Your task to perform on an android device: Open Google Chrome and click the shortcut for Amazon.com Image 0: 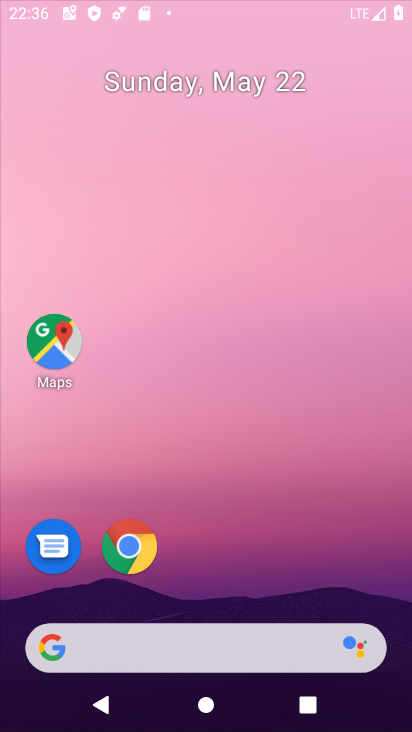
Step 0: drag from (213, 587) to (244, 146)
Your task to perform on an android device: Open Google Chrome and click the shortcut for Amazon.com Image 1: 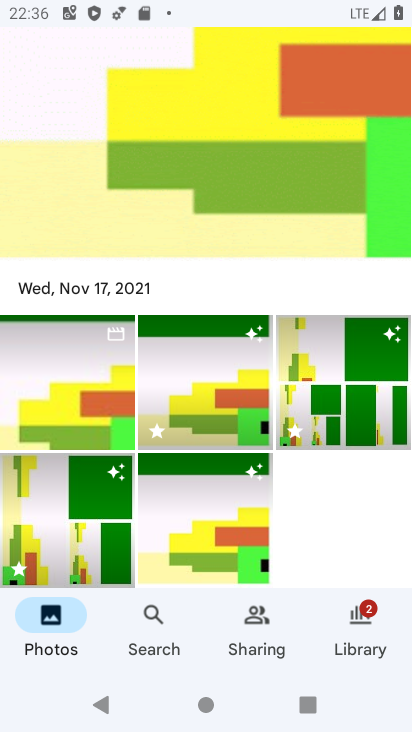
Step 1: press home button
Your task to perform on an android device: Open Google Chrome and click the shortcut for Amazon.com Image 2: 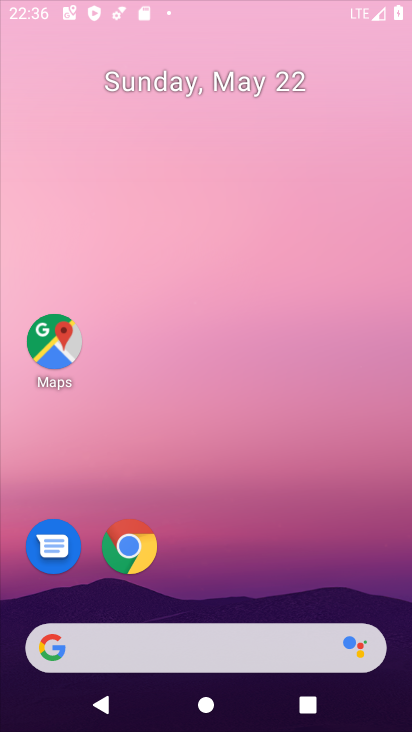
Step 2: drag from (181, 523) to (300, 114)
Your task to perform on an android device: Open Google Chrome and click the shortcut for Amazon.com Image 3: 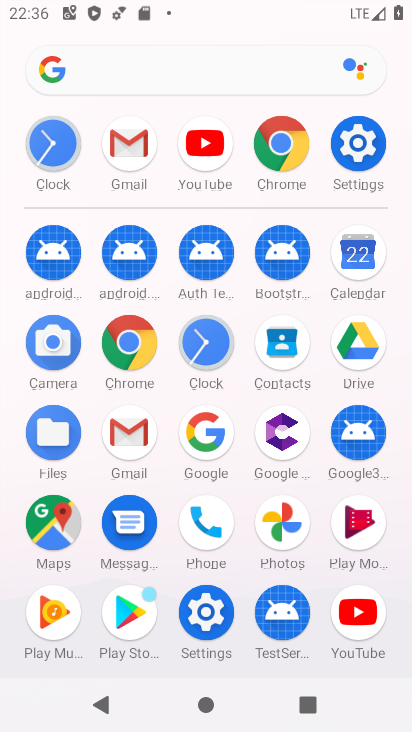
Step 3: click (269, 141)
Your task to perform on an android device: Open Google Chrome and click the shortcut for Amazon.com Image 4: 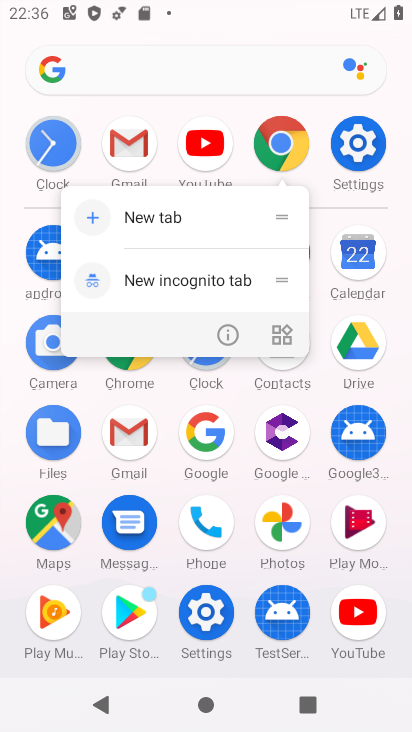
Step 4: click (227, 311)
Your task to perform on an android device: Open Google Chrome and click the shortcut for Amazon.com Image 5: 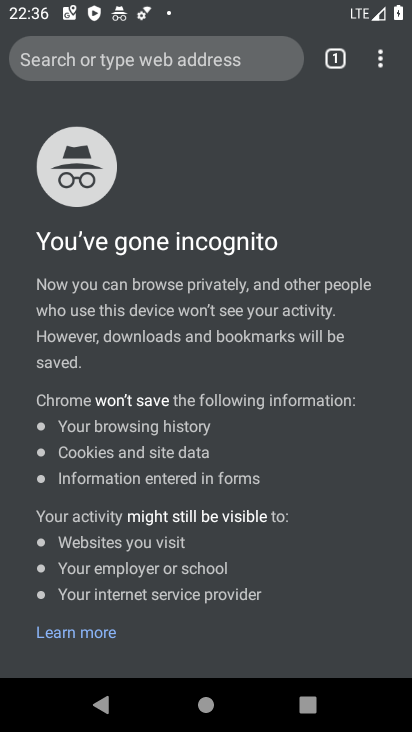
Step 5: click (344, 60)
Your task to perform on an android device: Open Google Chrome and click the shortcut for Amazon.com Image 6: 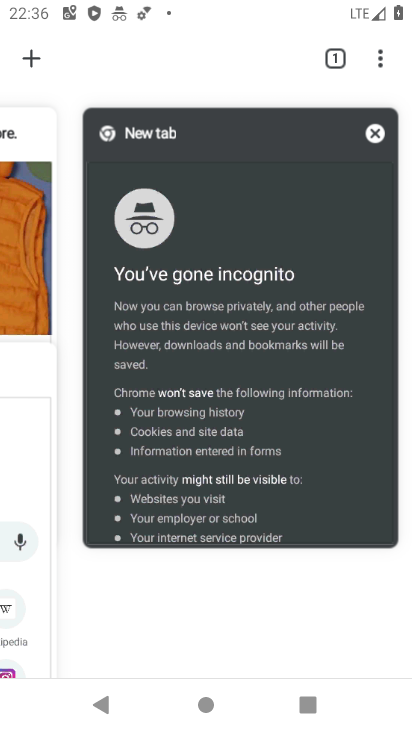
Step 6: click (375, 128)
Your task to perform on an android device: Open Google Chrome and click the shortcut for Amazon.com Image 7: 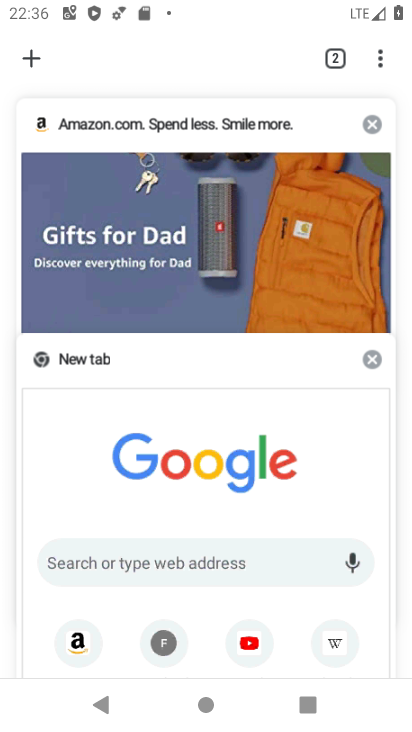
Step 7: click (252, 219)
Your task to perform on an android device: Open Google Chrome and click the shortcut for Amazon.com Image 8: 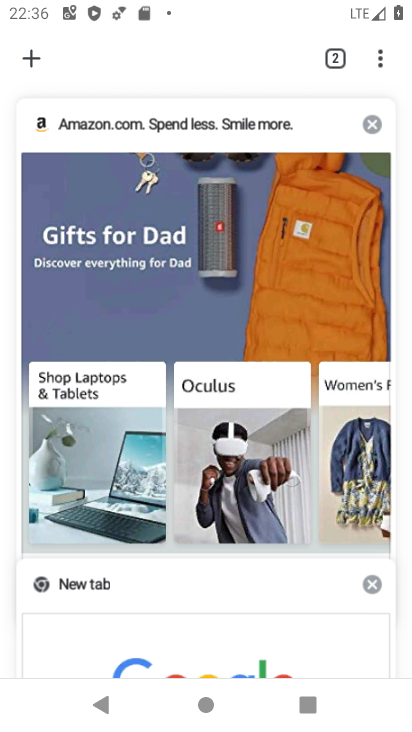
Step 8: click (281, 232)
Your task to perform on an android device: Open Google Chrome and click the shortcut for Amazon.com Image 9: 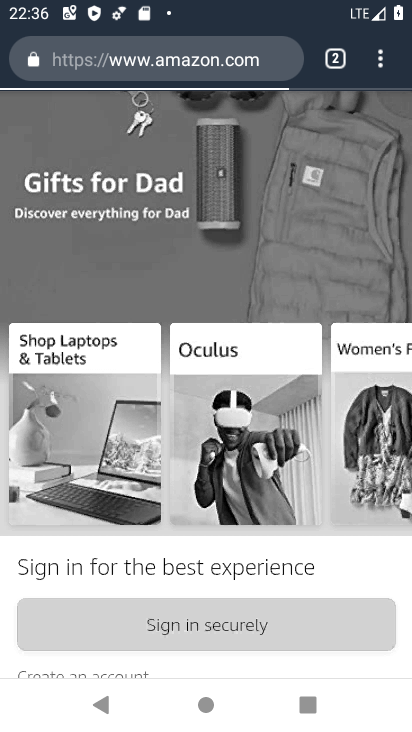
Step 9: click (388, 51)
Your task to perform on an android device: Open Google Chrome and click the shortcut for Amazon.com Image 10: 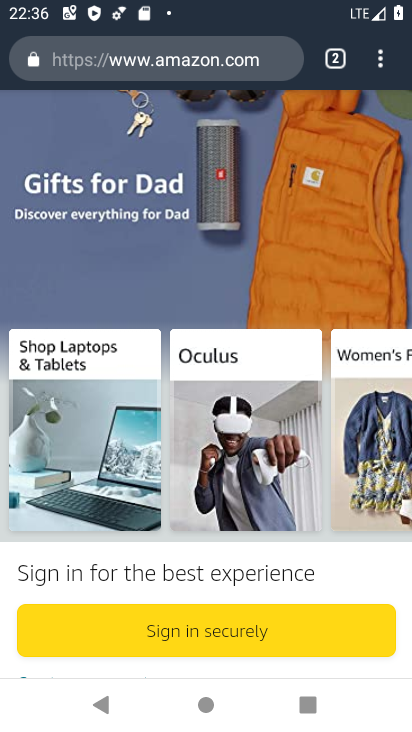
Step 10: click (386, 59)
Your task to perform on an android device: Open Google Chrome and click the shortcut for Amazon.com Image 11: 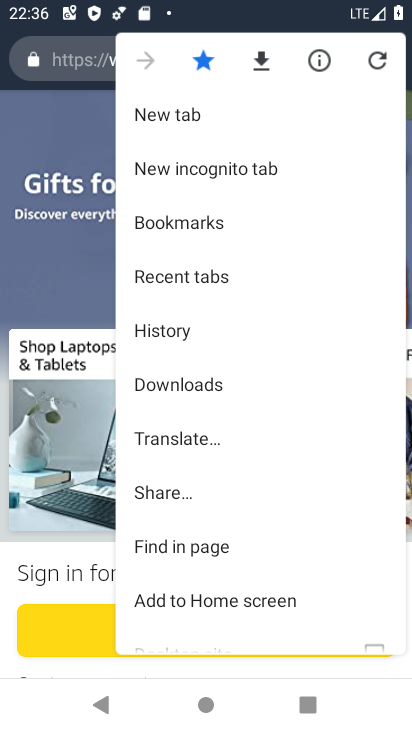
Step 11: drag from (221, 540) to (300, 236)
Your task to perform on an android device: Open Google Chrome and click the shortcut for Amazon.com Image 12: 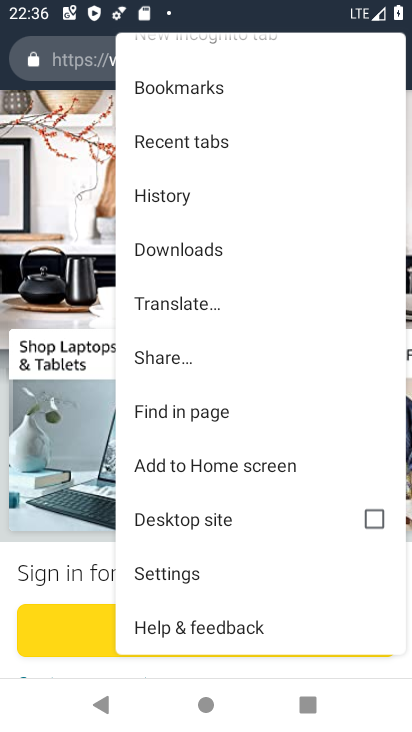
Step 12: click (76, 203)
Your task to perform on an android device: Open Google Chrome and click the shortcut for Amazon.com Image 13: 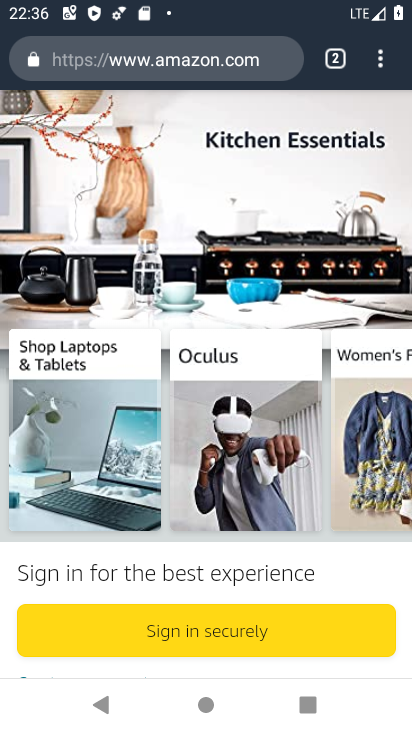
Step 13: click (340, 58)
Your task to perform on an android device: Open Google Chrome and click the shortcut for Amazon.com Image 14: 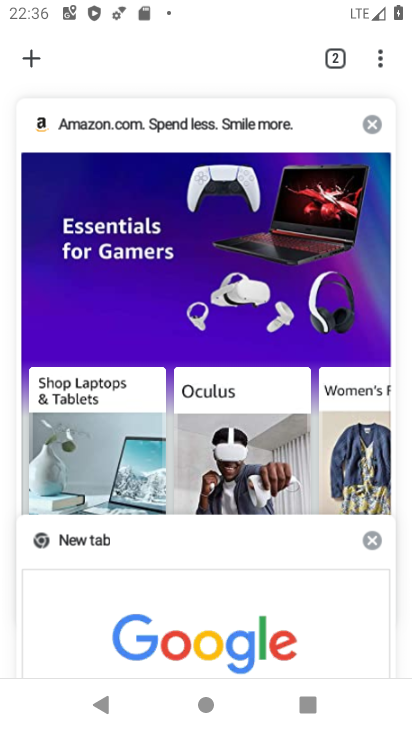
Step 14: click (41, 61)
Your task to perform on an android device: Open Google Chrome and click the shortcut for Amazon.com Image 15: 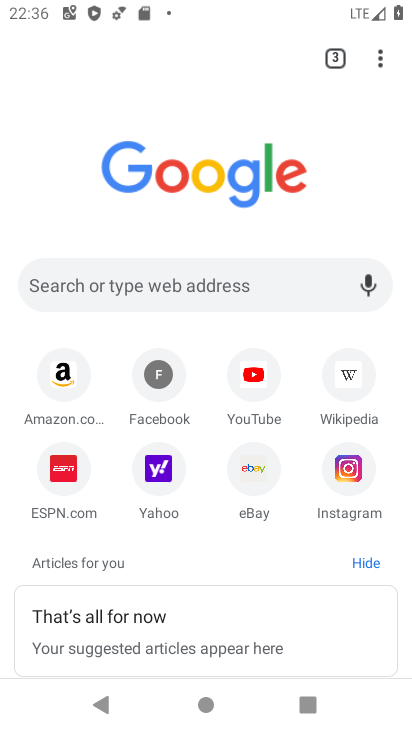
Step 15: click (61, 386)
Your task to perform on an android device: Open Google Chrome and click the shortcut for Amazon.com Image 16: 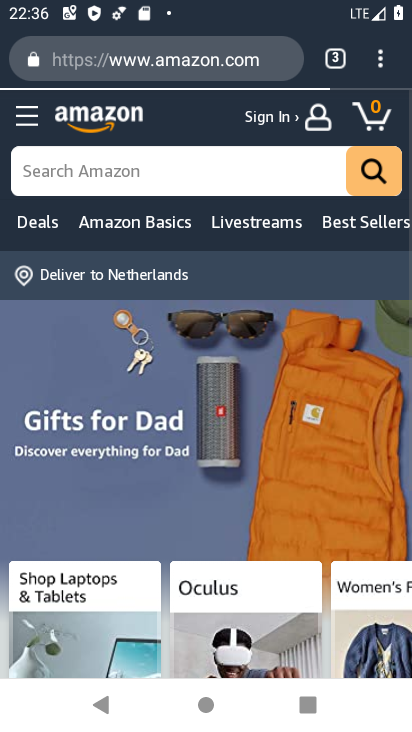
Step 16: task complete